Your task to perform on an android device: Do I have any events today? Image 0: 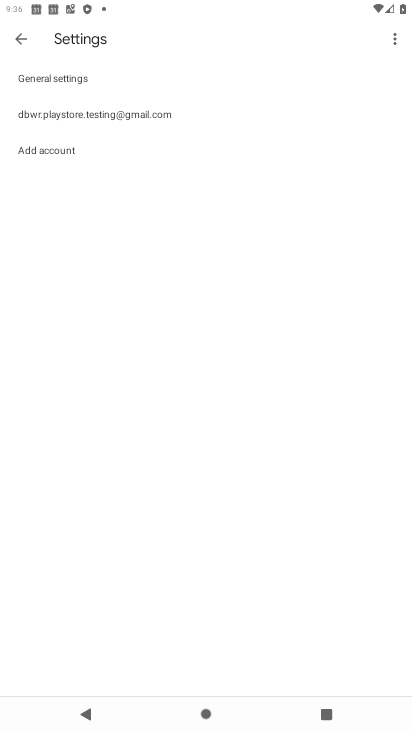
Step 0: press home button
Your task to perform on an android device: Do I have any events today? Image 1: 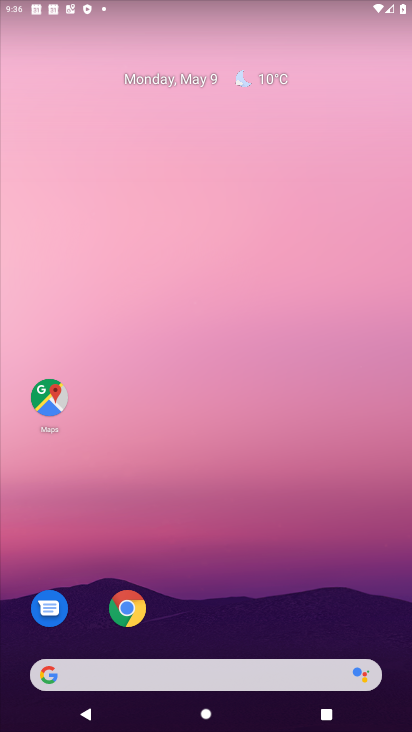
Step 1: drag from (352, 588) to (289, 156)
Your task to perform on an android device: Do I have any events today? Image 2: 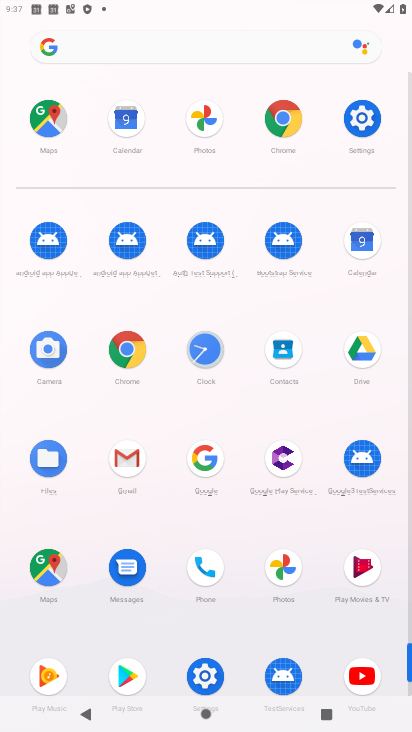
Step 2: click (366, 257)
Your task to perform on an android device: Do I have any events today? Image 3: 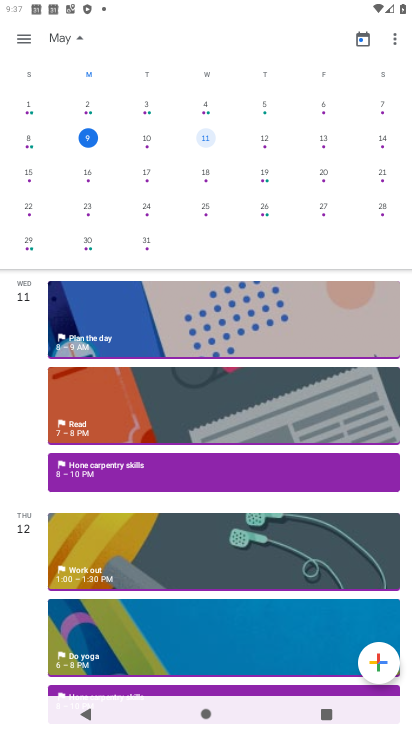
Step 3: task complete